Your task to perform on an android device: Go to Yahoo.com Image 0: 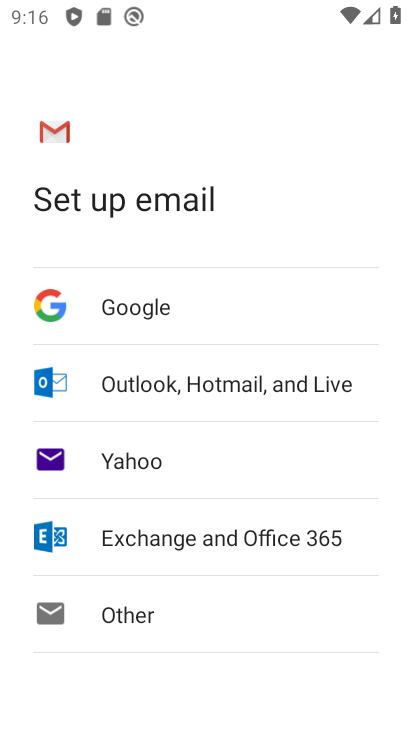
Step 0: press back button
Your task to perform on an android device: Go to Yahoo.com Image 1: 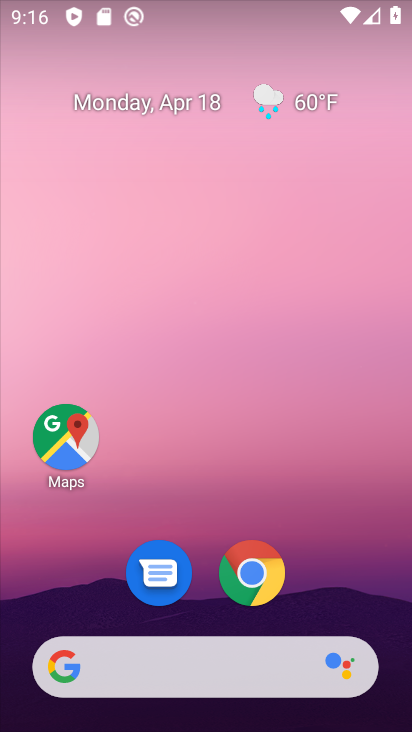
Step 1: click (254, 573)
Your task to perform on an android device: Go to Yahoo.com Image 2: 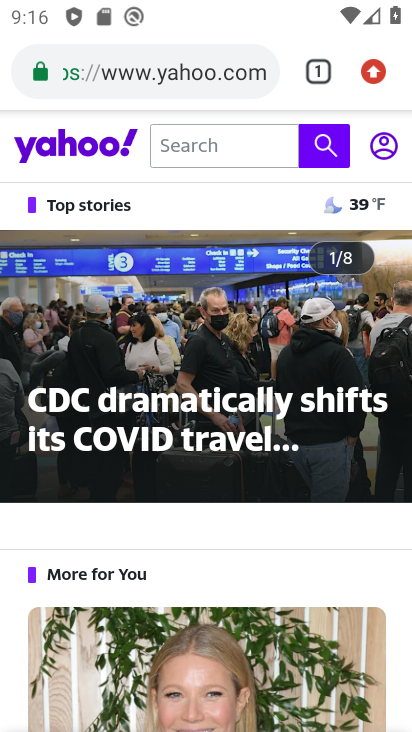
Step 2: task complete